Your task to perform on an android device: Open accessibility settings Image 0: 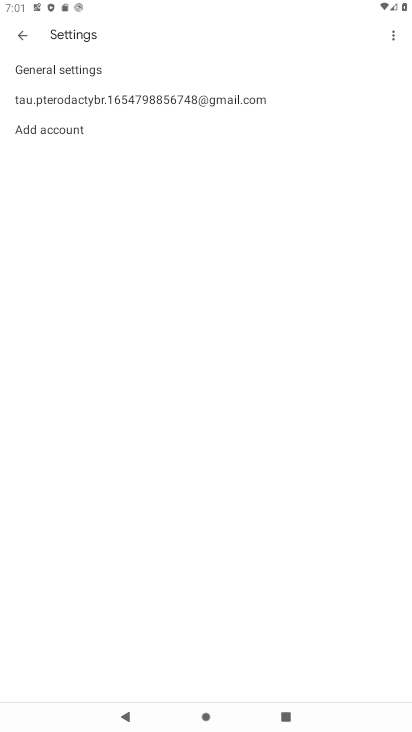
Step 0: press home button
Your task to perform on an android device: Open accessibility settings Image 1: 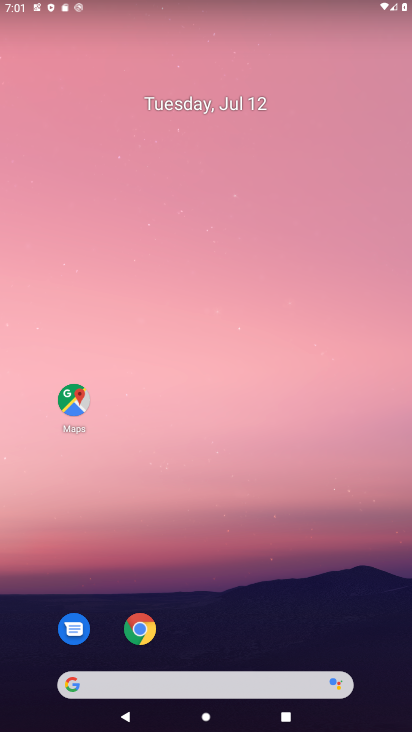
Step 1: drag from (255, 704) to (262, 128)
Your task to perform on an android device: Open accessibility settings Image 2: 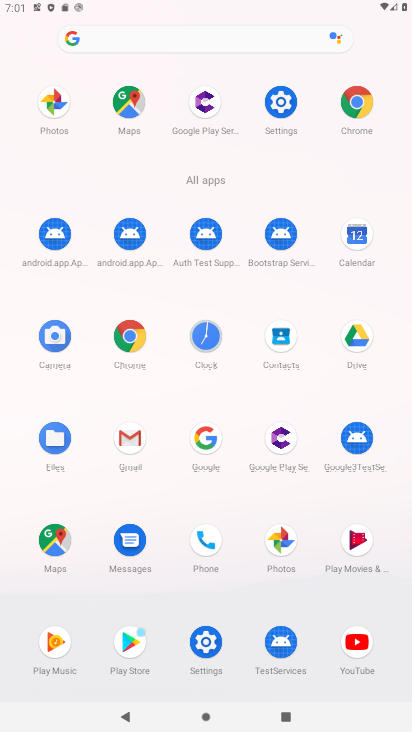
Step 2: drag from (276, 117) to (251, 610)
Your task to perform on an android device: Open accessibility settings Image 3: 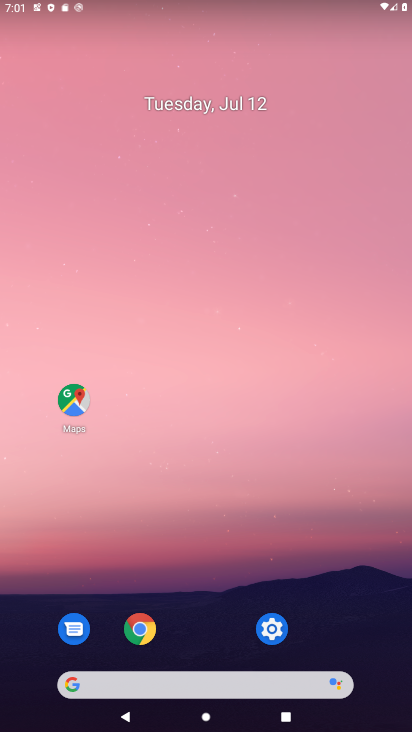
Step 3: click (279, 634)
Your task to perform on an android device: Open accessibility settings Image 4: 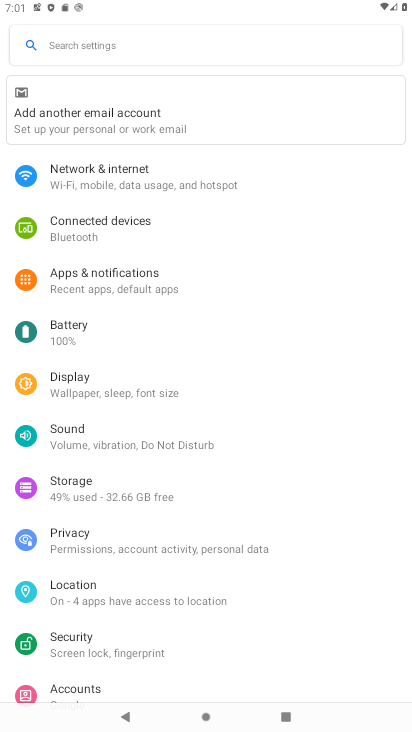
Step 4: click (72, 52)
Your task to perform on an android device: Open accessibility settings Image 5: 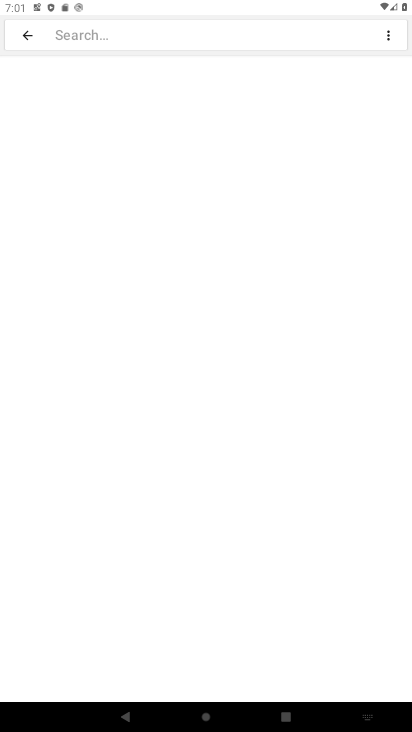
Step 5: drag from (393, 717) to (390, 602)
Your task to perform on an android device: Open accessibility settings Image 6: 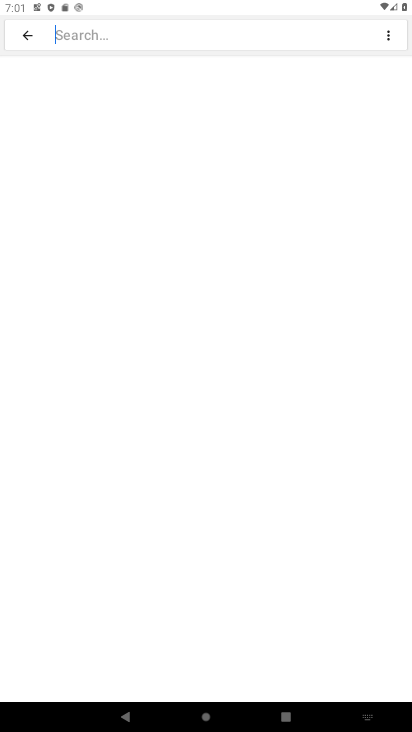
Step 6: click (377, 723)
Your task to perform on an android device: Open accessibility settings Image 7: 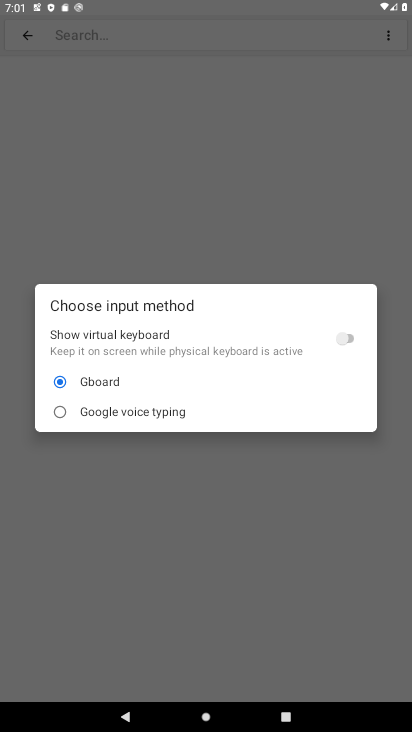
Step 7: click (341, 336)
Your task to perform on an android device: Open accessibility settings Image 8: 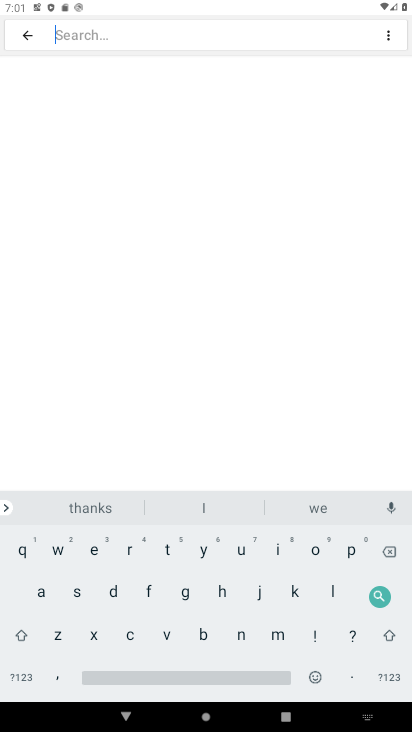
Step 8: click (42, 584)
Your task to perform on an android device: Open accessibility settings Image 9: 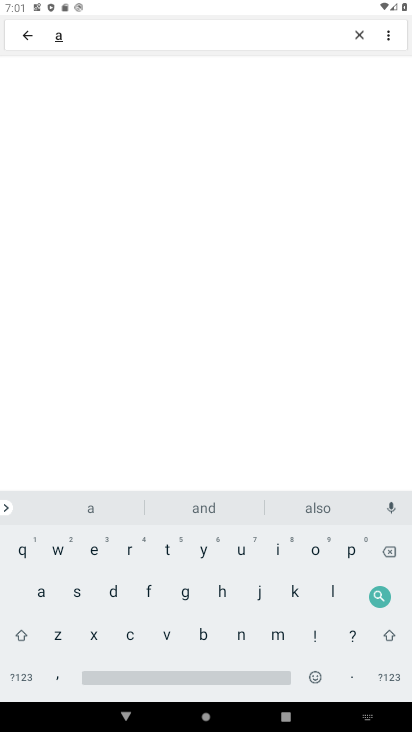
Step 9: click (131, 641)
Your task to perform on an android device: Open accessibility settings Image 10: 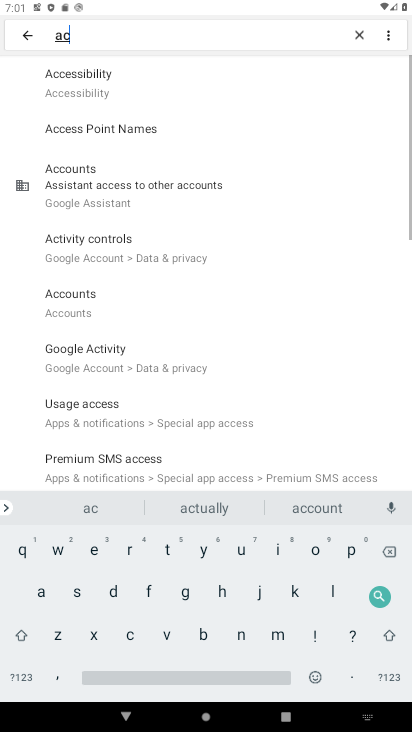
Step 10: click (106, 94)
Your task to perform on an android device: Open accessibility settings Image 11: 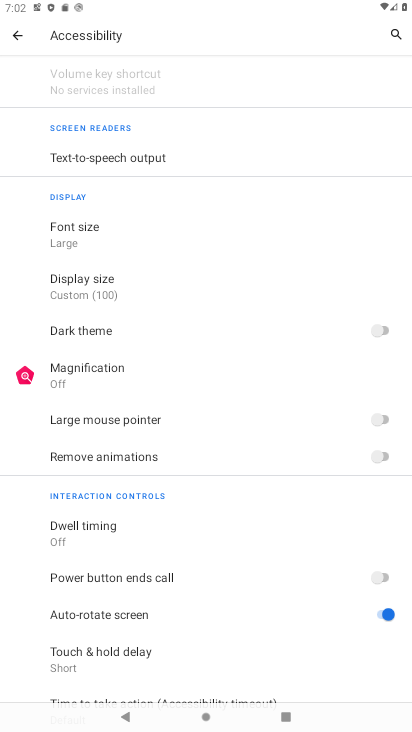
Step 11: task complete